Your task to perform on an android device: Show me popular videos on Youtube Image 0: 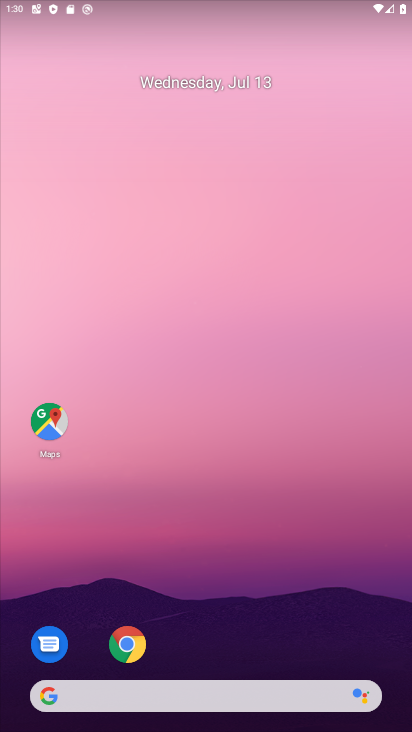
Step 0: drag from (306, 619) to (248, 156)
Your task to perform on an android device: Show me popular videos on Youtube Image 1: 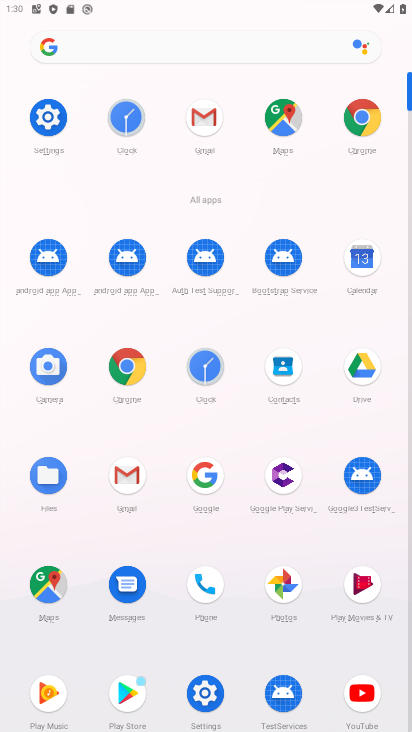
Step 1: click (372, 695)
Your task to perform on an android device: Show me popular videos on Youtube Image 2: 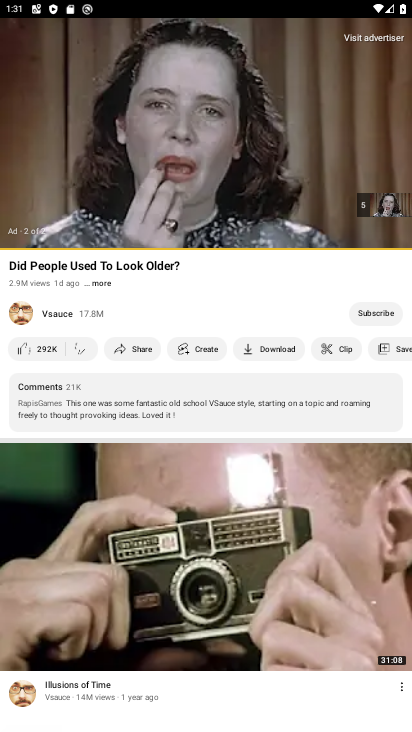
Step 2: press back button
Your task to perform on an android device: Show me popular videos on Youtube Image 3: 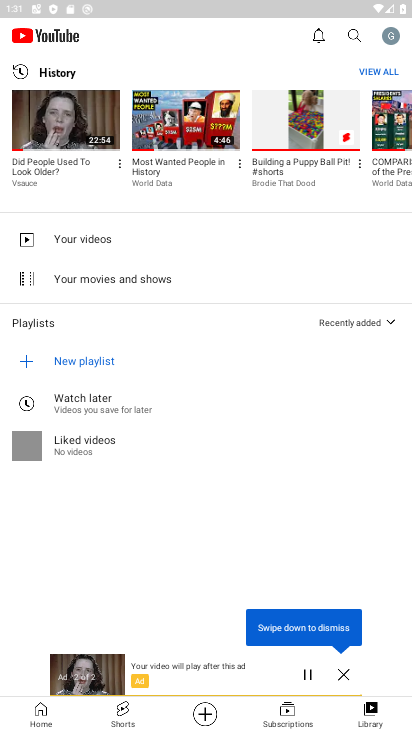
Step 3: click (48, 714)
Your task to perform on an android device: Show me popular videos on Youtube Image 4: 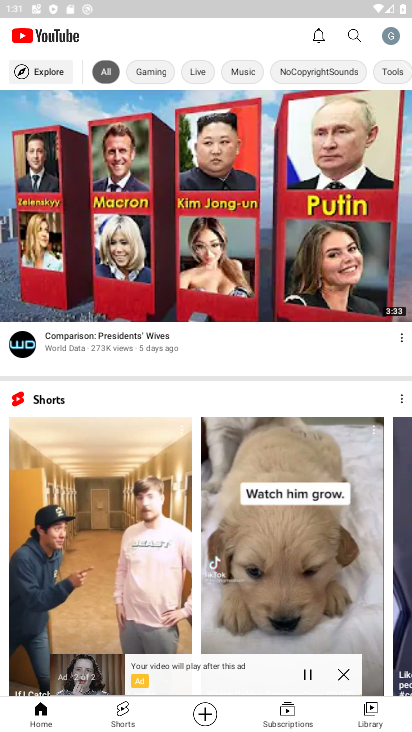
Step 4: click (45, 64)
Your task to perform on an android device: Show me popular videos on Youtube Image 5: 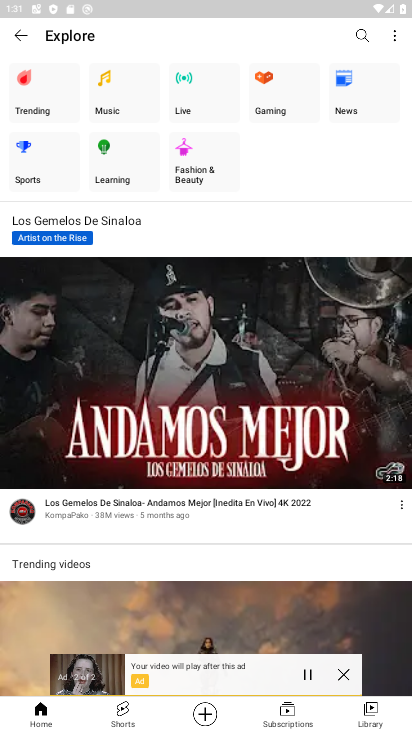
Step 5: click (33, 95)
Your task to perform on an android device: Show me popular videos on Youtube Image 6: 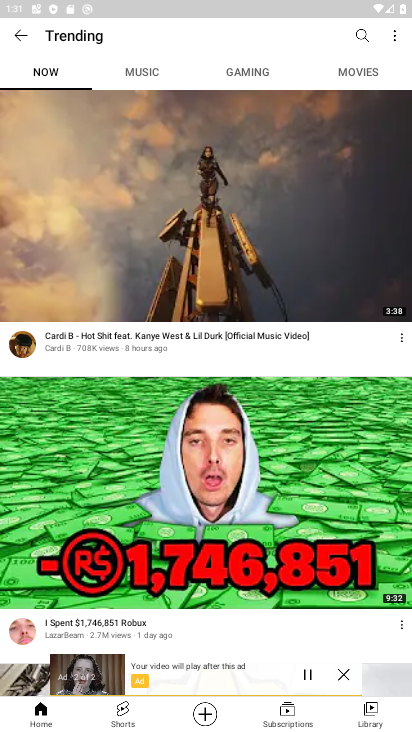
Step 6: task complete